Your task to perform on an android device: Open location settings Image 0: 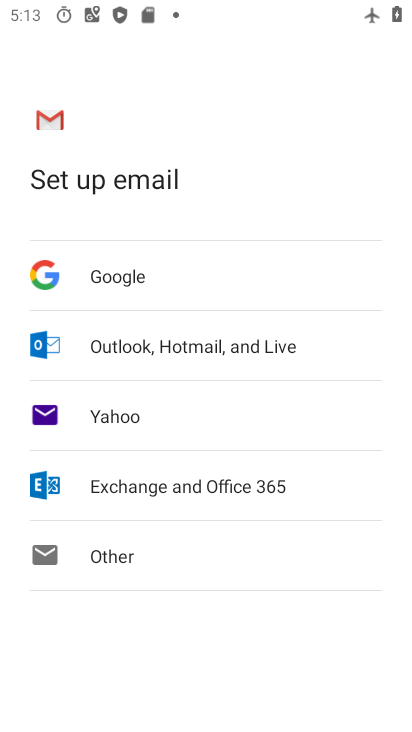
Step 0: press home button
Your task to perform on an android device: Open location settings Image 1: 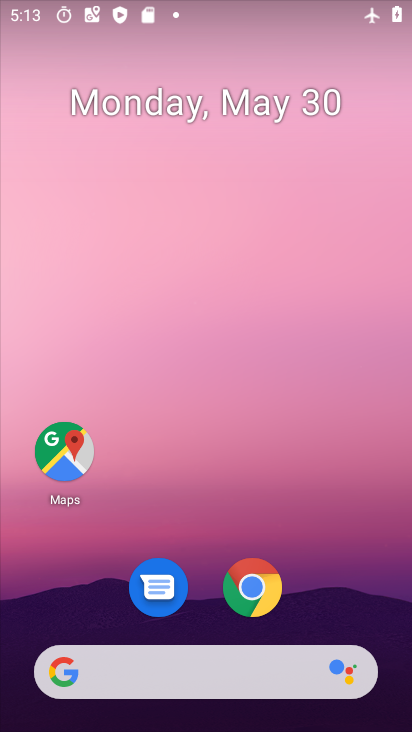
Step 1: drag from (349, 580) to (232, 38)
Your task to perform on an android device: Open location settings Image 2: 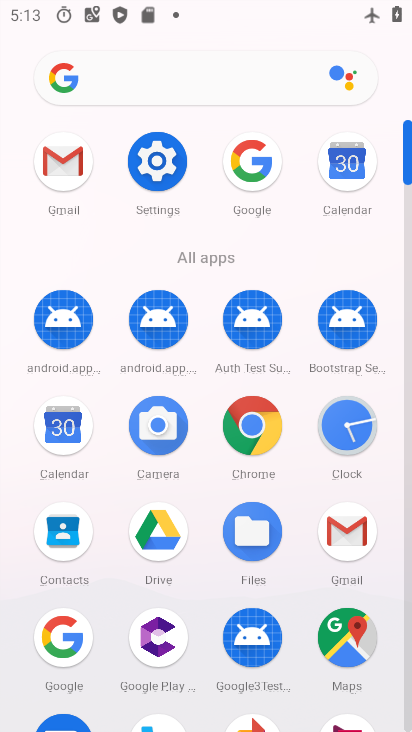
Step 2: click (156, 157)
Your task to perform on an android device: Open location settings Image 3: 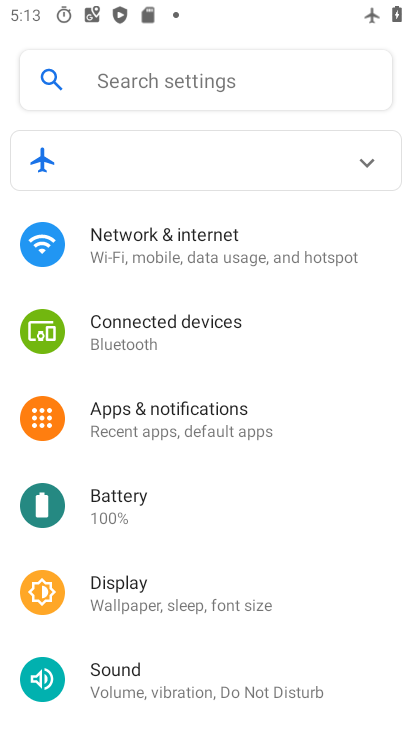
Step 3: drag from (183, 501) to (235, 402)
Your task to perform on an android device: Open location settings Image 4: 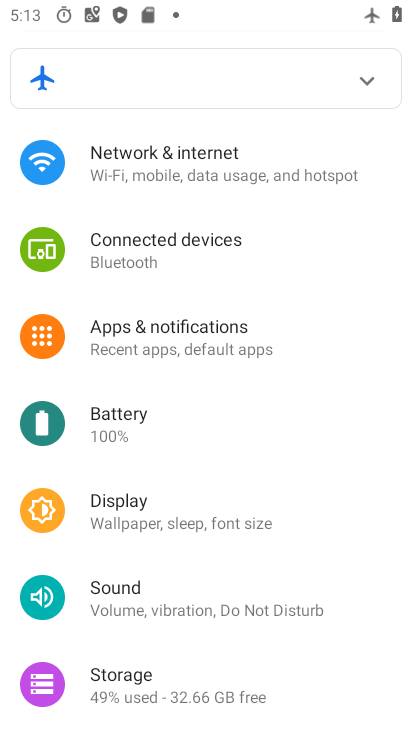
Step 4: drag from (172, 560) to (234, 442)
Your task to perform on an android device: Open location settings Image 5: 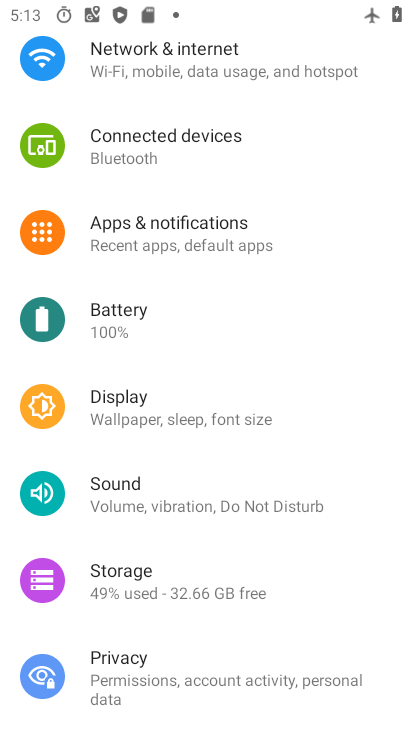
Step 5: drag from (175, 561) to (232, 439)
Your task to perform on an android device: Open location settings Image 6: 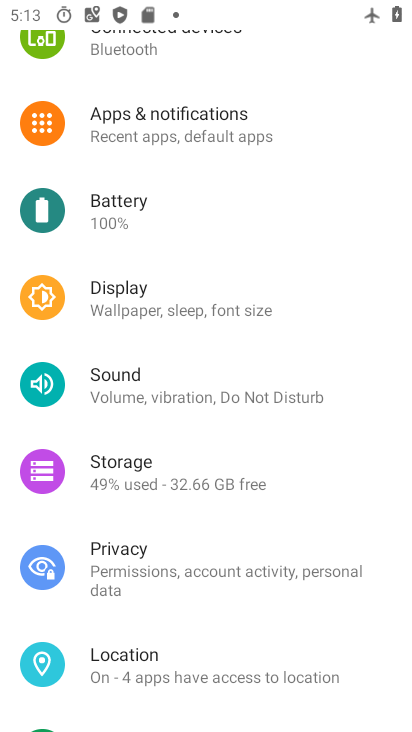
Step 6: click (136, 648)
Your task to perform on an android device: Open location settings Image 7: 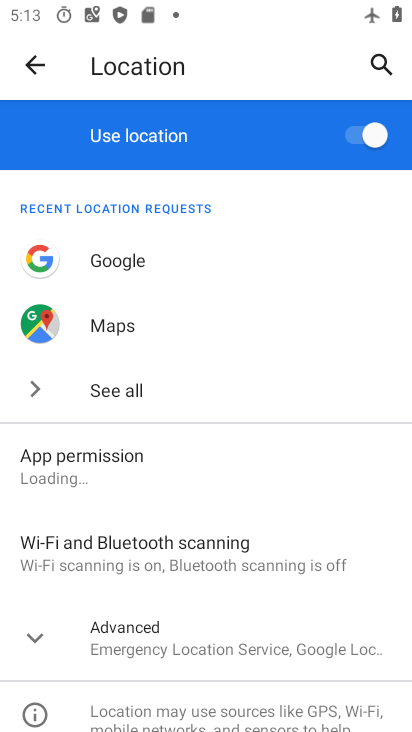
Step 7: task complete